Your task to perform on an android device: Go to Google Image 0: 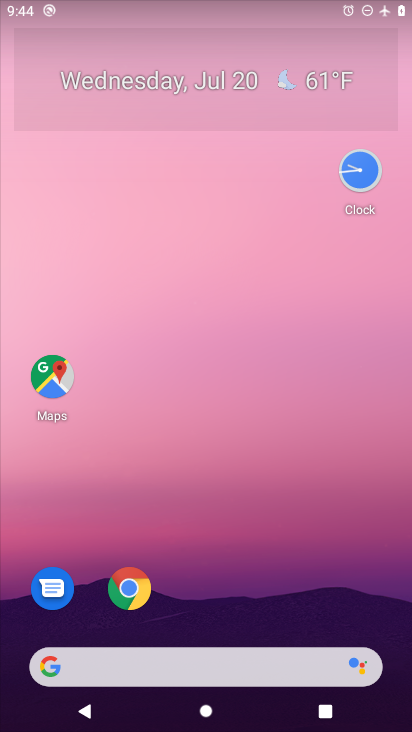
Step 0: click (102, 667)
Your task to perform on an android device: Go to Google Image 1: 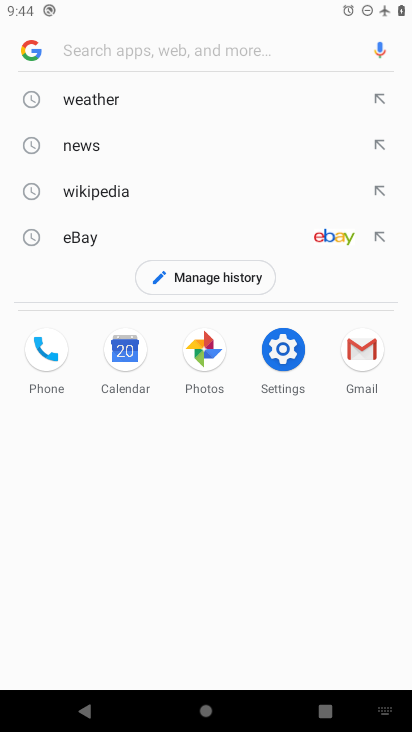
Step 1: task complete